Your task to perform on an android device: create a new album in the google photos Image 0: 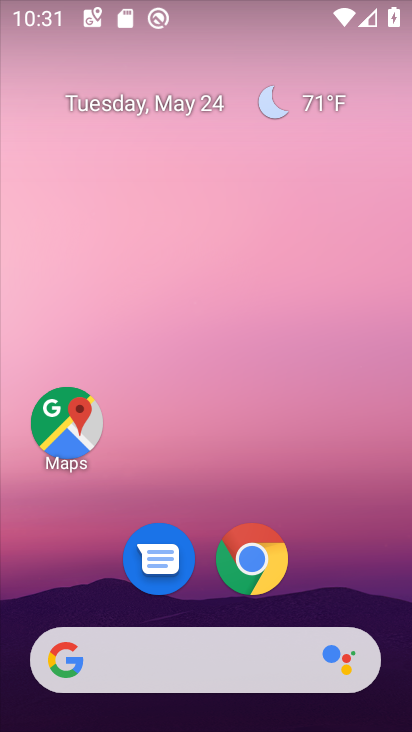
Step 0: drag from (388, 651) to (342, 193)
Your task to perform on an android device: create a new album in the google photos Image 1: 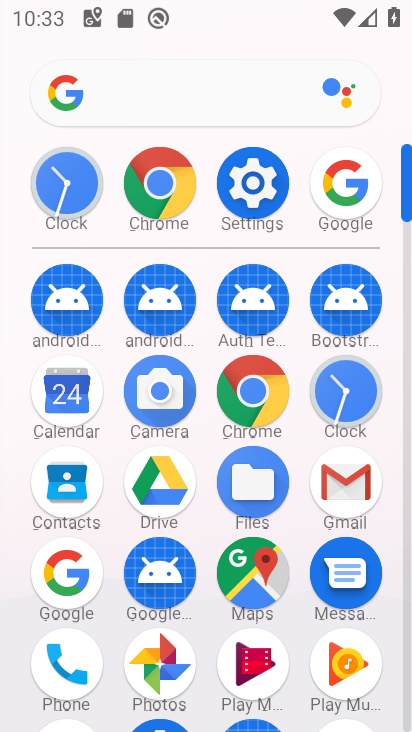
Step 1: click (154, 651)
Your task to perform on an android device: create a new album in the google photos Image 2: 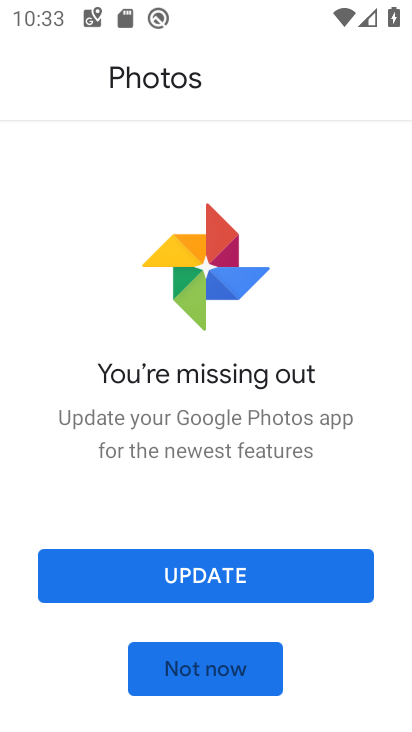
Step 2: click (232, 569)
Your task to perform on an android device: create a new album in the google photos Image 3: 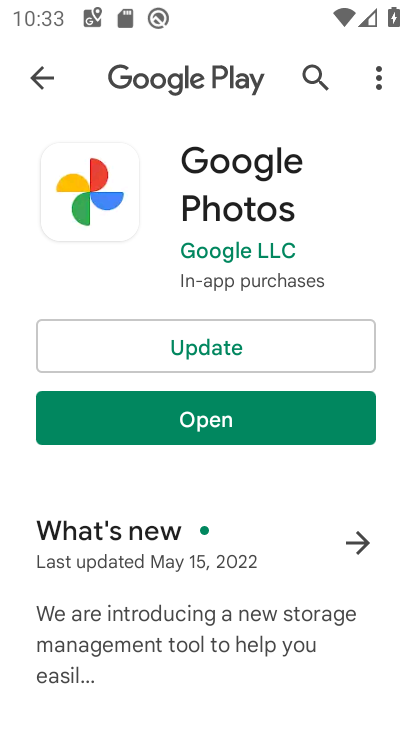
Step 3: click (285, 339)
Your task to perform on an android device: create a new album in the google photos Image 4: 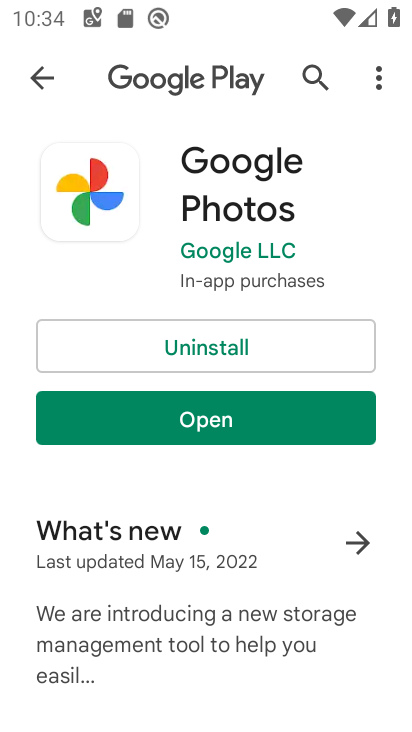
Step 4: click (177, 423)
Your task to perform on an android device: create a new album in the google photos Image 5: 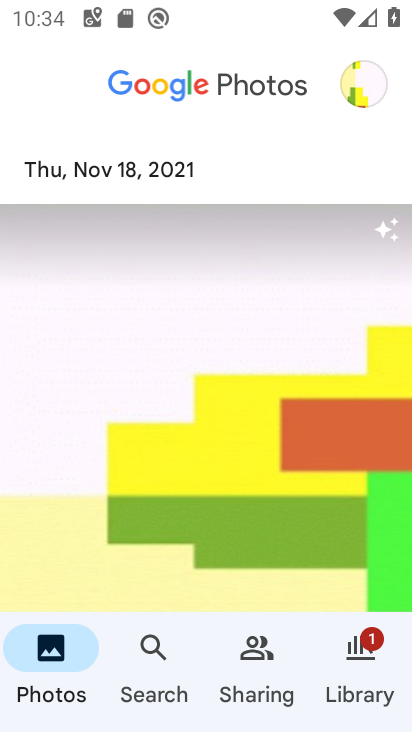
Step 5: task complete